Your task to perform on an android device: check storage Image 0: 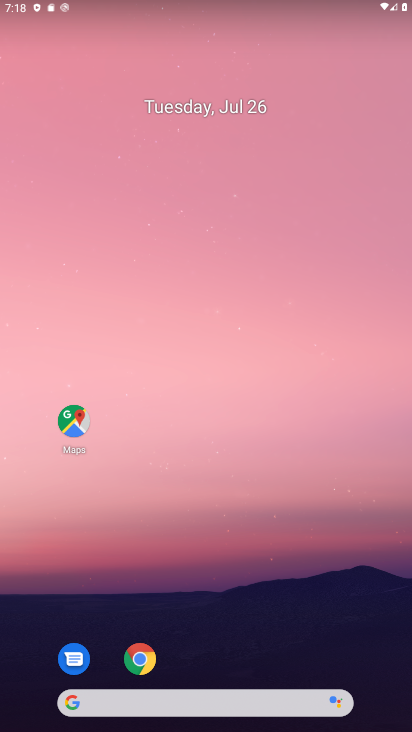
Step 0: drag from (199, 676) to (129, 94)
Your task to perform on an android device: check storage Image 1: 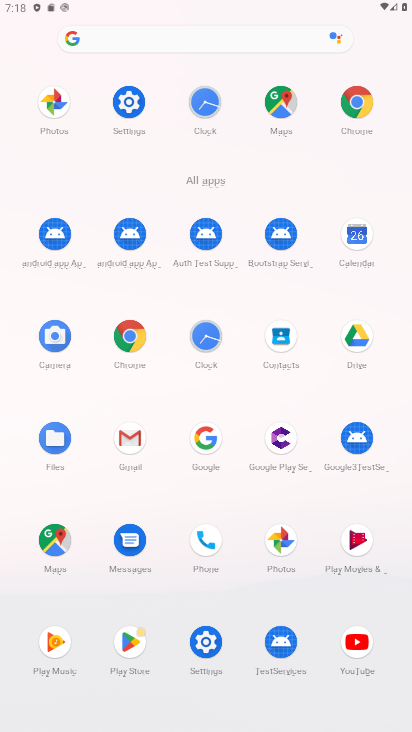
Step 1: click (133, 100)
Your task to perform on an android device: check storage Image 2: 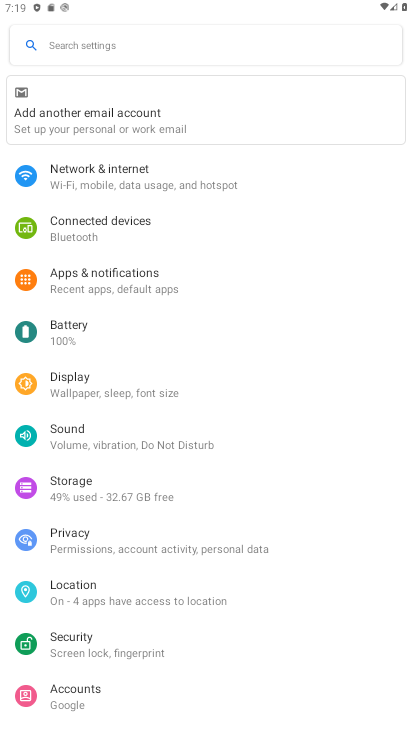
Step 2: click (46, 477)
Your task to perform on an android device: check storage Image 3: 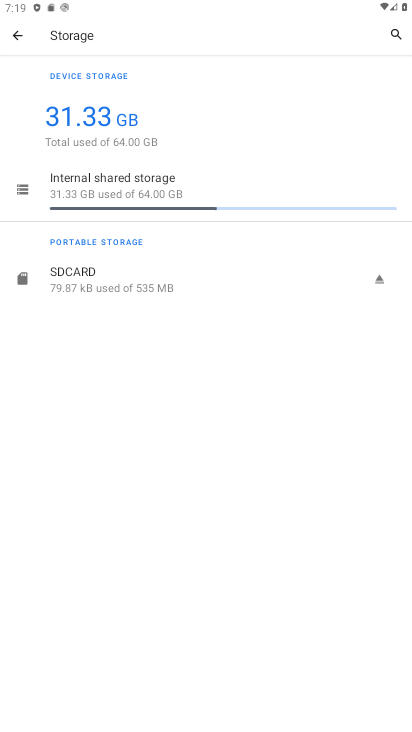
Step 3: click (78, 207)
Your task to perform on an android device: check storage Image 4: 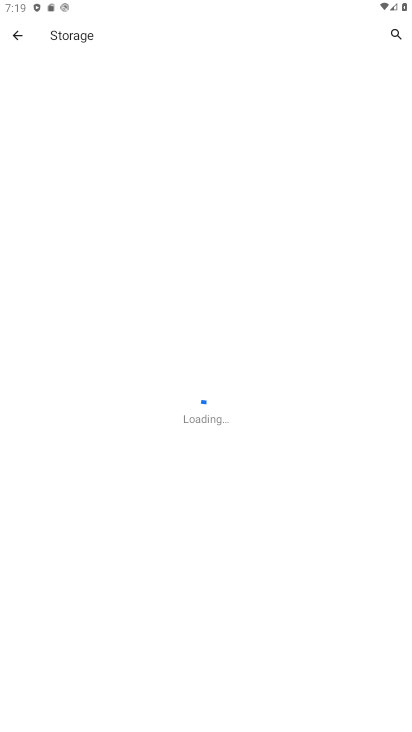
Step 4: task complete